Your task to perform on an android device: Open settings Image 0: 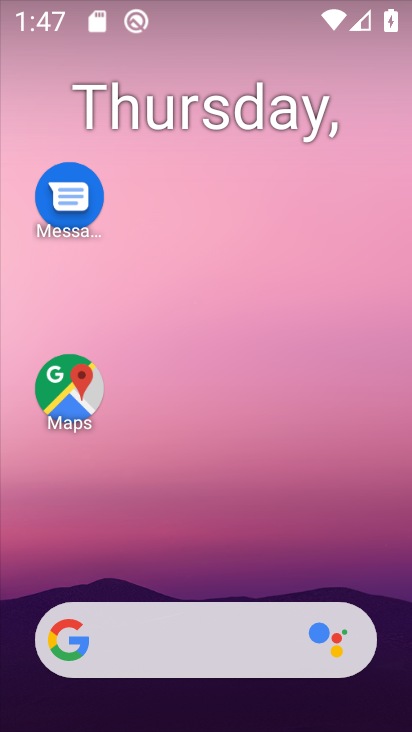
Step 0: drag from (124, 588) to (152, 148)
Your task to perform on an android device: Open settings Image 1: 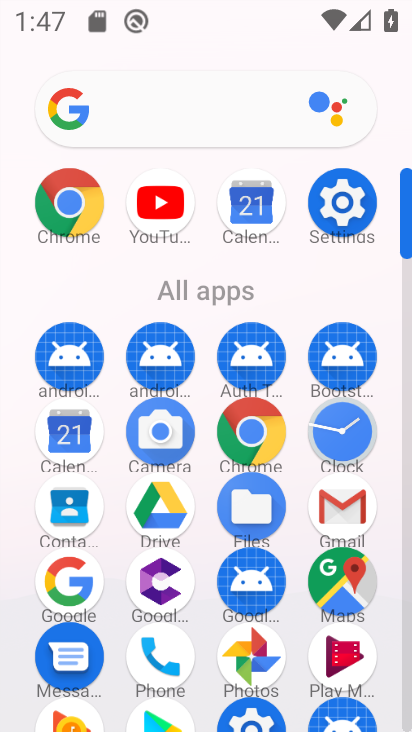
Step 1: click (337, 191)
Your task to perform on an android device: Open settings Image 2: 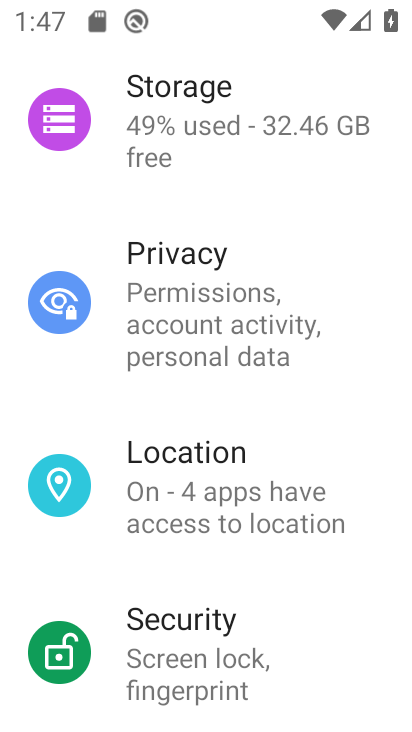
Step 2: task complete